Your task to perform on an android device: create a new album in the google photos Image 0: 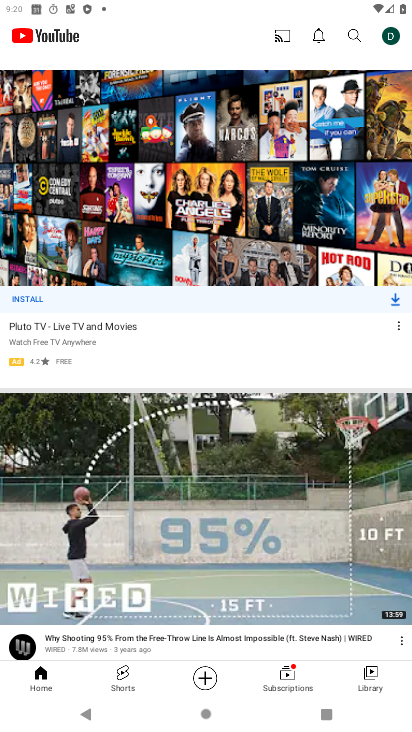
Step 0: press home button
Your task to perform on an android device: create a new album in the google photos Image 1: 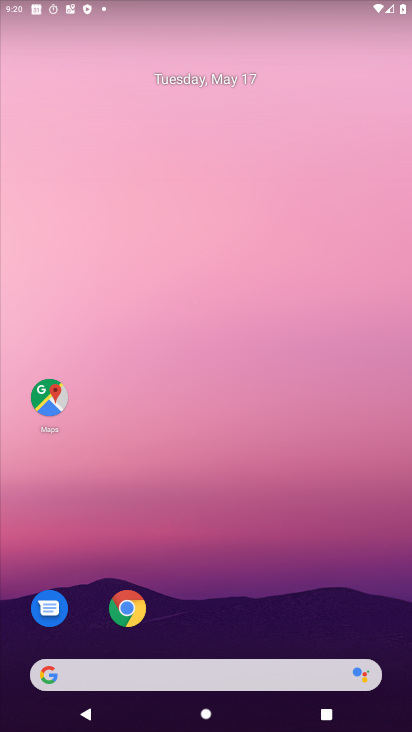
Step 1: drag from (339, 616) to (310, 257)
Your task to perform on an android device: create a new album in the google photos Image 2: 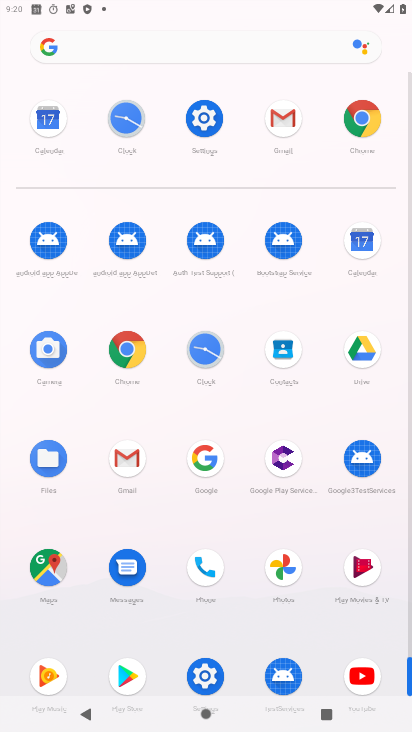
Step 2: click (283, 566)
Your task to perform on an android device: create a new album in the google photos Image 3: 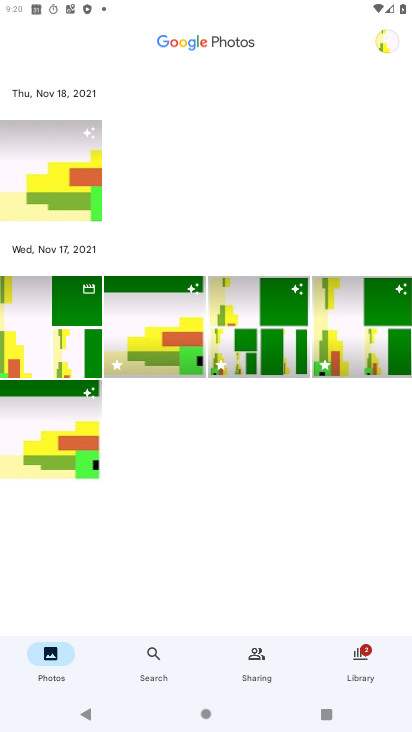
Step 3: click (151, 654)
Your task to perform on an android device: create a new album in the google photos Image 4: 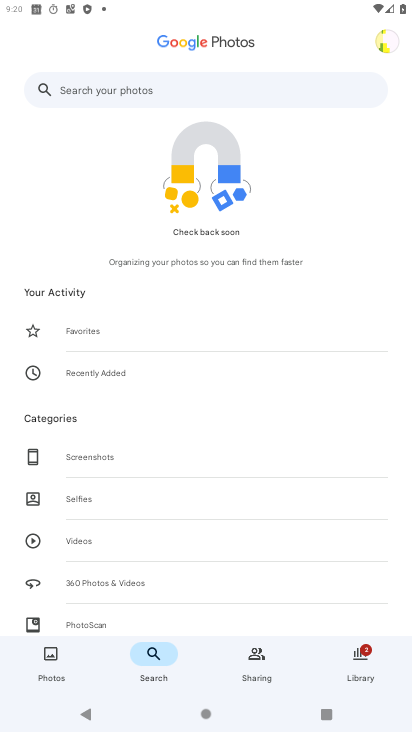
Step 4: click (371, 665)
Your task to perform on an android device: create a new album in the google photos Image 5: 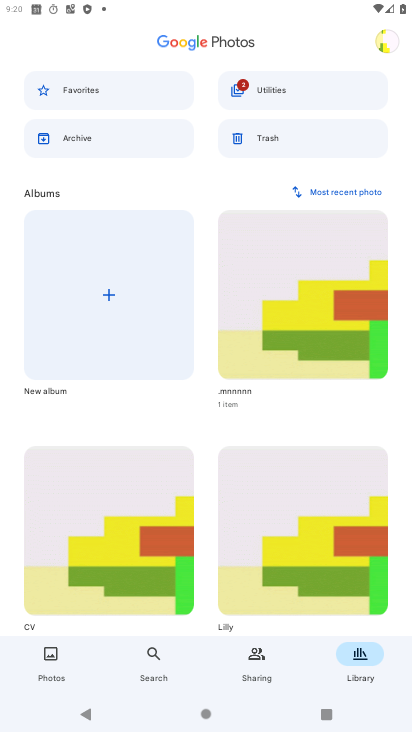
Step 5: click (107, 300)
Your task to perform on an android device: create a new album in the google photos Image 6: 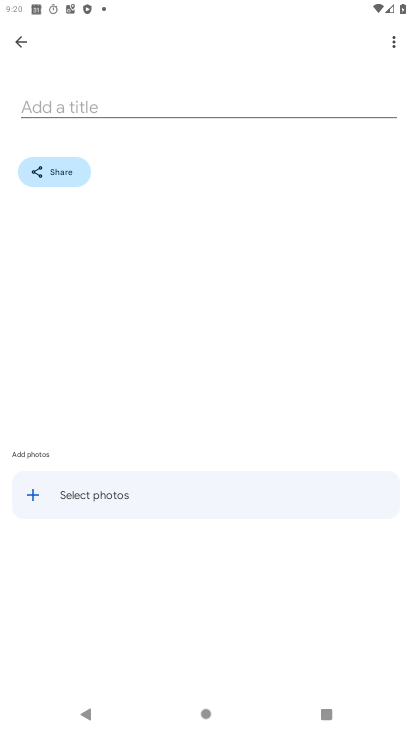
Step 6: click (87, 108)
Your task to perform on an android device: create a new album in the google photos Image 7: 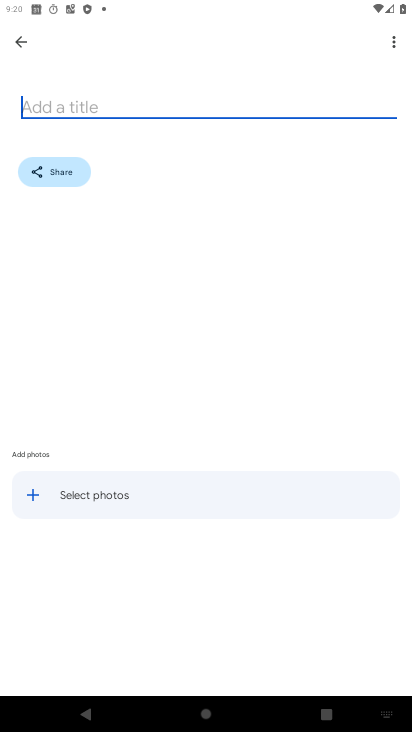
Step 7: type "79283"
Your task to perform on an android device: create a new album in the google photos Image 8: 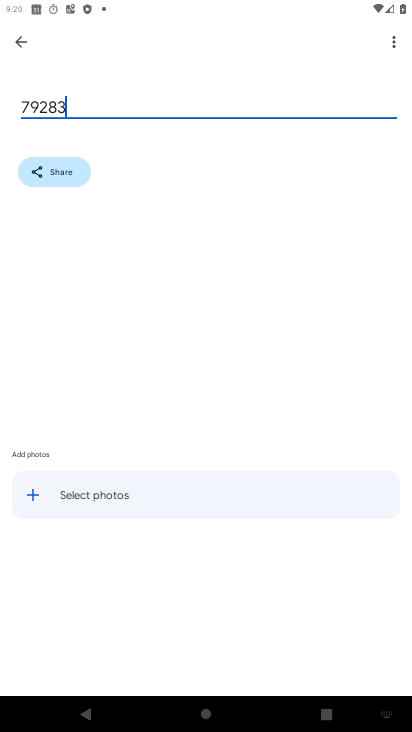
Step 8: click (34, 493)
Your task to perform on an android device: create a new album in the google photos Image 9: 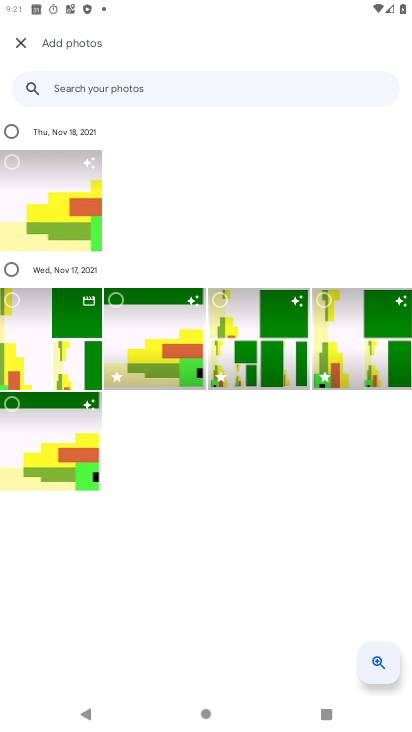
Step 9: click (21, 162)
Your task to perform on an android device: create a new album in the google photos Image 10: 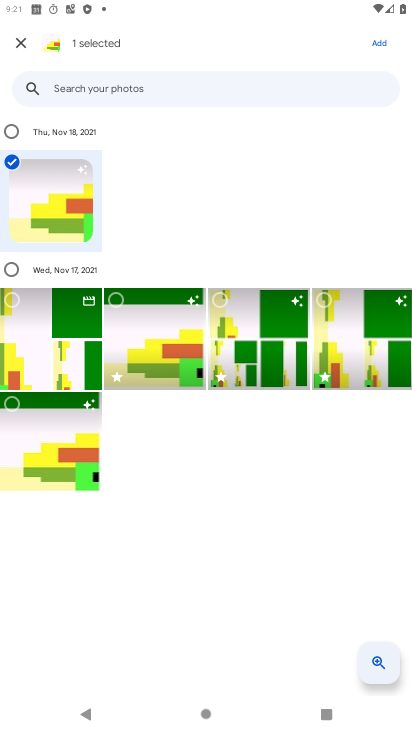
Step 10: click (375, 42)
Your task to perform on an android device: create a new album in the google photos Image 11: 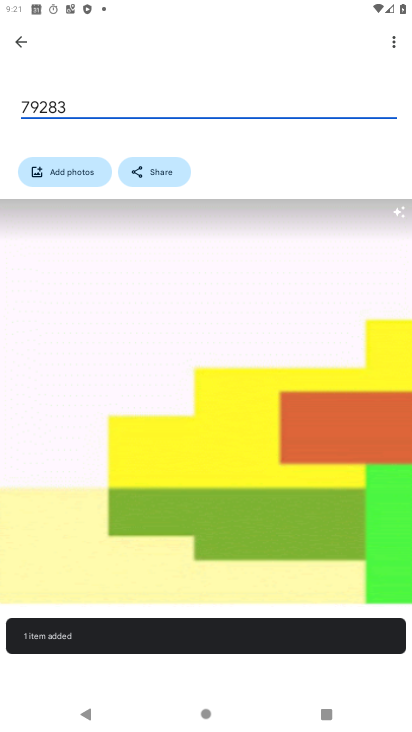
Step 11: task complete